Your task to perform on an android device: Search for sushi restaurants on Maps Image 0: 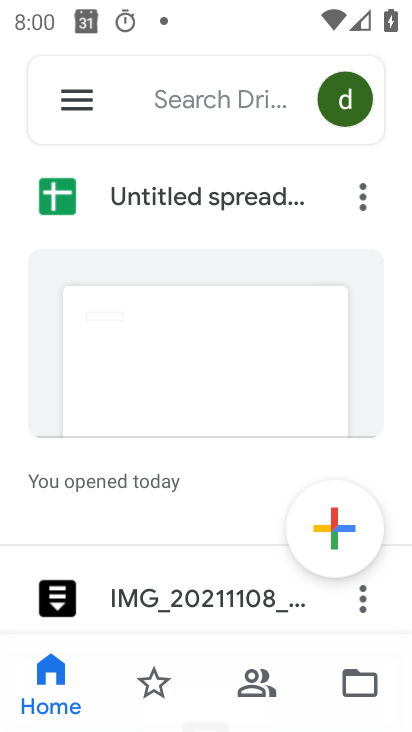
Step 0: press home button
Your task to perform on an android device: Search for sushi restaurants on Maps Image 1: 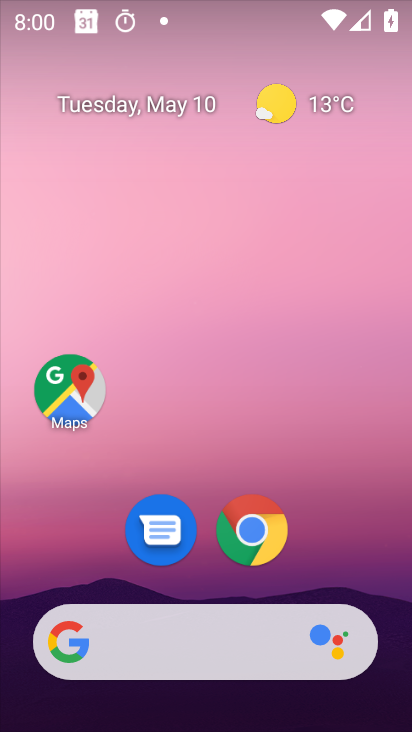
Step 1: click (61, 390)
Your task to perform on an android device: Search for sushi restaurants on Maps Image 2: 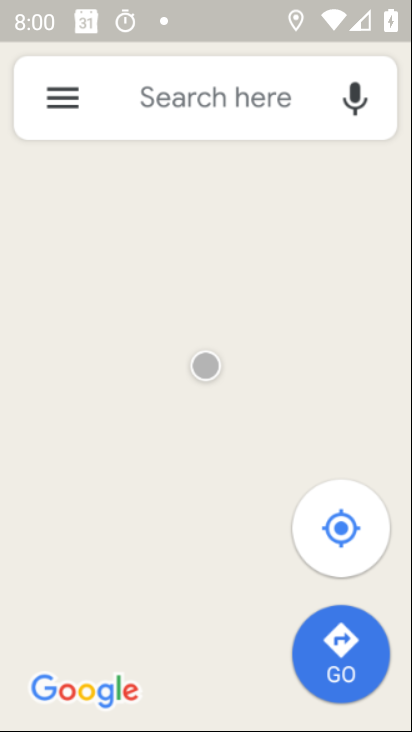
Step 2: click (167, 87)
Your task to perform on an android device: Search for sushi restaurants on Maps Image 3: 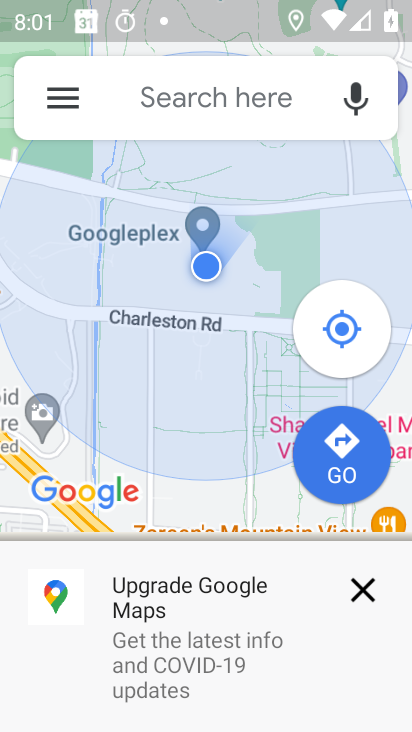
Step 3: type "sushi restaurants"
Your task to perform on an android device: Search for sushi restaurants on Maps Image 4: 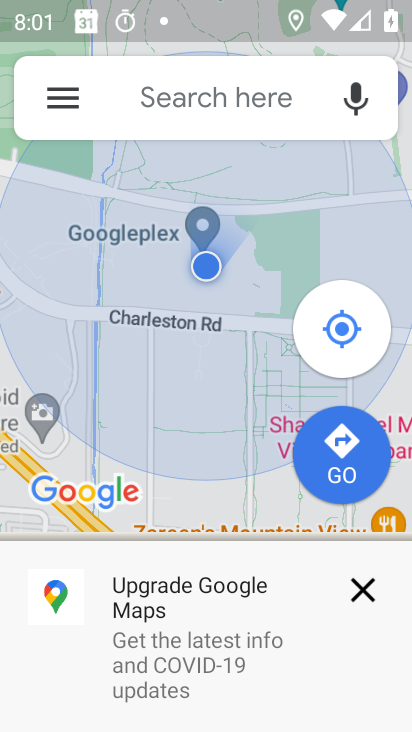
Step 4: click (216, 102)
Your task to perform on an android device: Search for sushi restaurants on Maps Image 5: 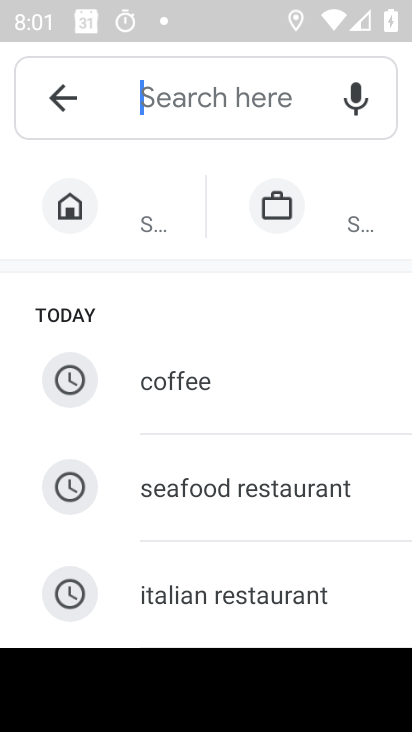
Step 5: type "sushi restaurants"
Your task to perform on an android device: Search for sushi restaurants on Maps Image 6: 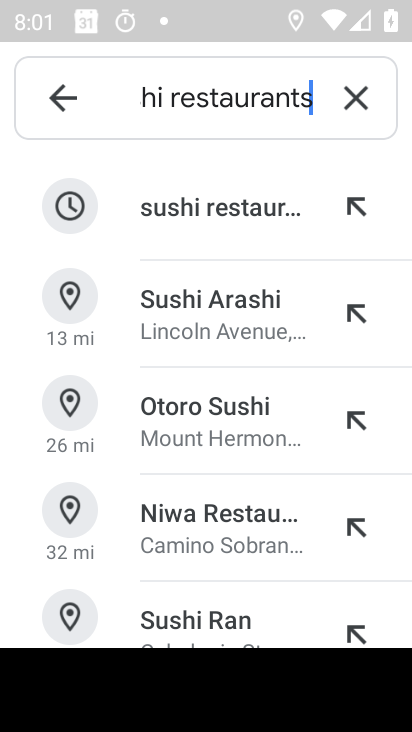
Step 6: press enter
Your task to perform on an android device: Search for sushi restaurants on Maps Image 7: 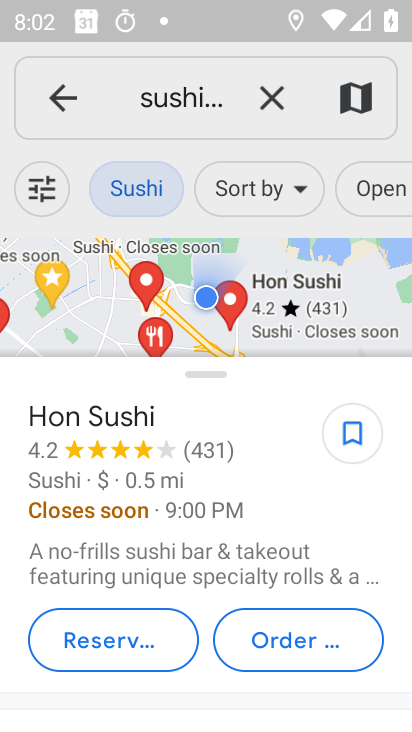
Step 7: task complete